Your task to perform on an android device: Open calendar and show me the second week of next month Image 0: 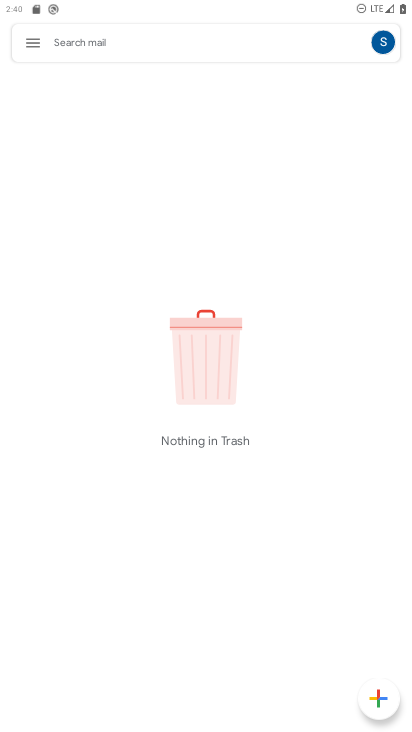
Step 0: press home button
Your task to perform on an android device: Open calendar and show me the second week of next month Image 1: 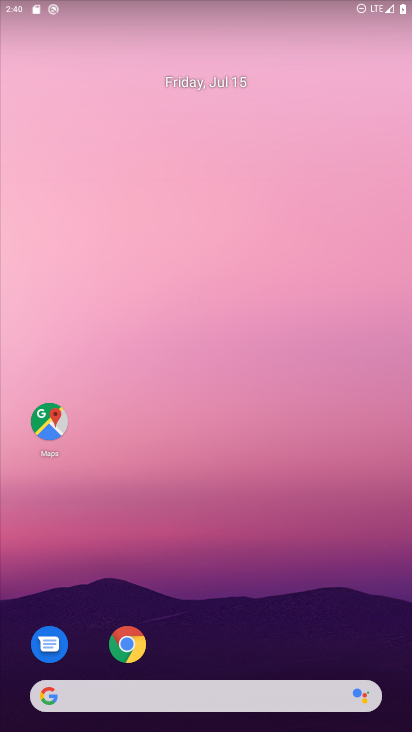
Step 1: drag from (42, 593) to (273, 150)
Your task to perform on an android device: Open calendar and show me the second week of next month Image 2: 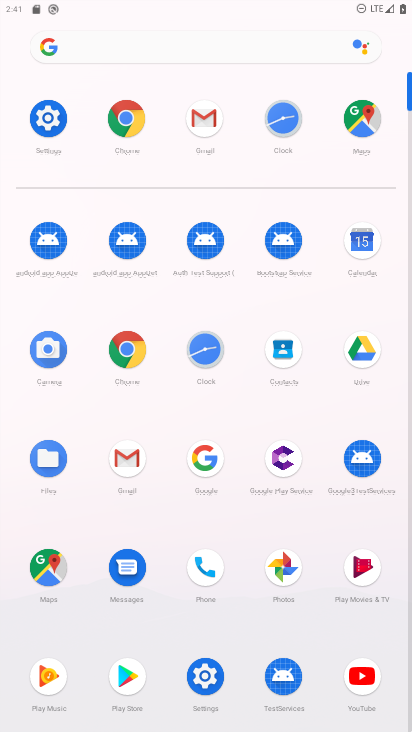
Step 2: click (364, 233)
Your task to perform on an android device: Open calendar and show me the second week of next month Image 3: 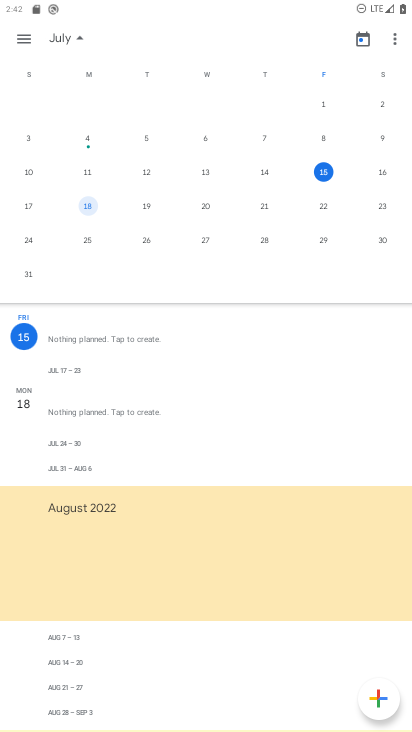
Step 3: drag from (336, 211) to (1, 178)
Your task to perform on an android device: Open calendar and show me the second week of next month Image 4: 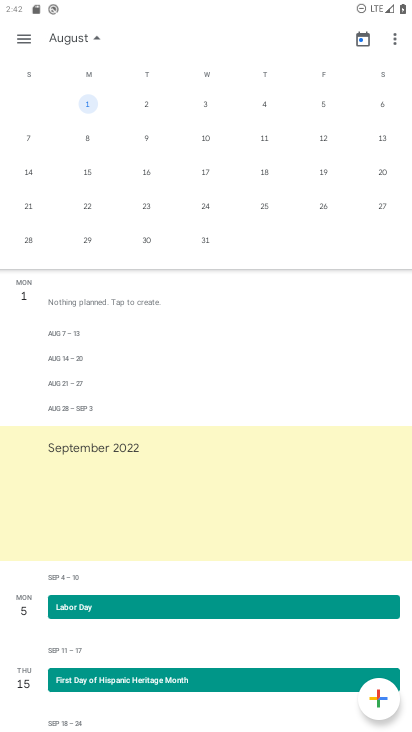
Step 4: click (99, 136)
Your task to perform on an android device: Open calendar and show me the second week of next month Image 5: 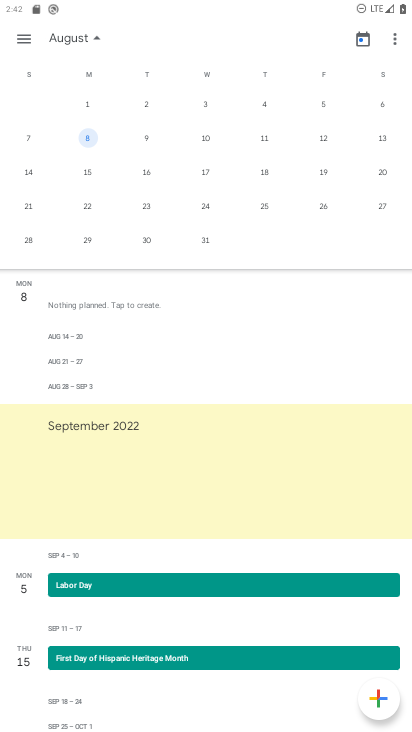
Step 5: task complete